Your task to perform on an android device: toggle location history Image 0: 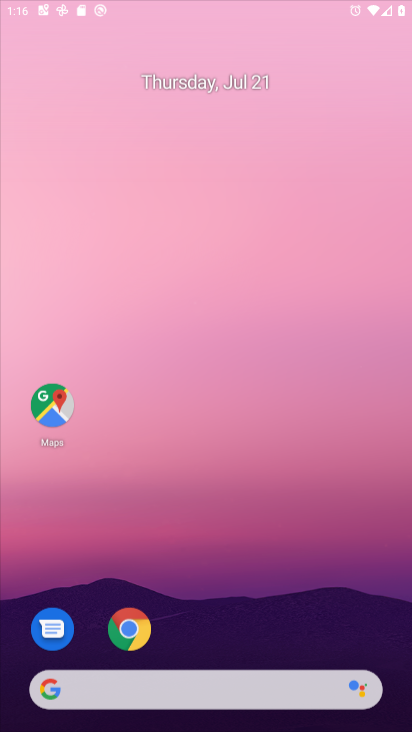
Step 0: click (204, 11)
Your task to perform on an android device: toggle location history Image 1: 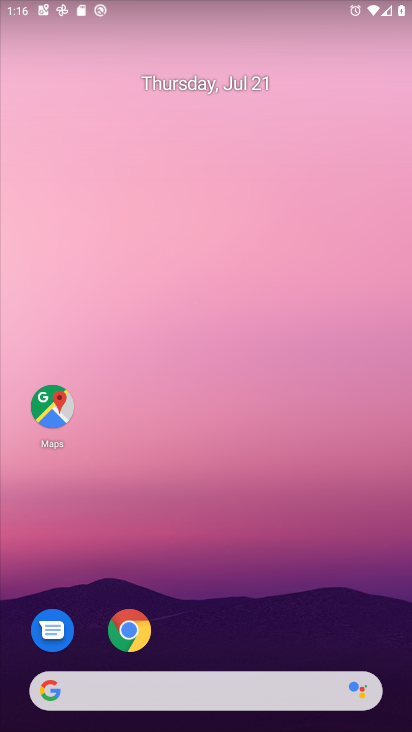
Step 1: drag from (229, 636) to (203, 205)
Your task to perform on an android device: toggle location history Image 2: 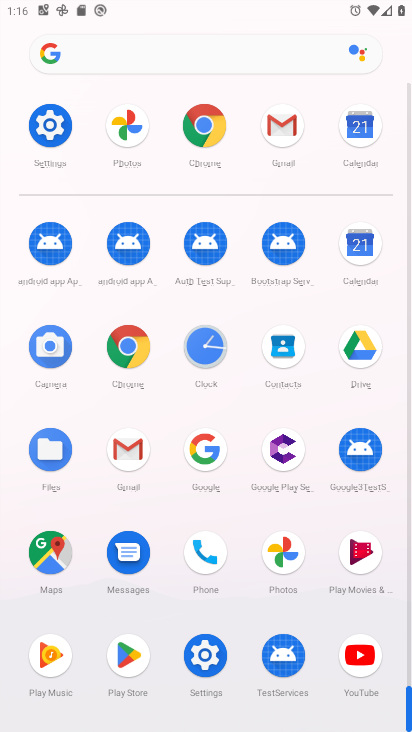
Step 2: click (193, 660)
Your task to perform on an android device: toggle location history Image 3: 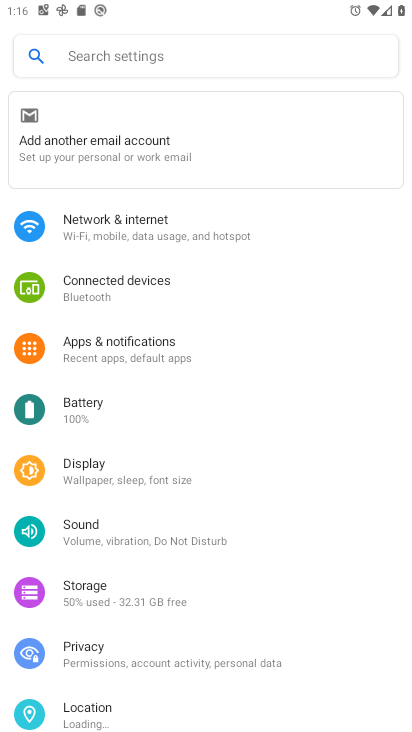
Step 3: drag from (202, 671) to (274, 273)
Your task to perform on an android device: toggle location history Image 4: 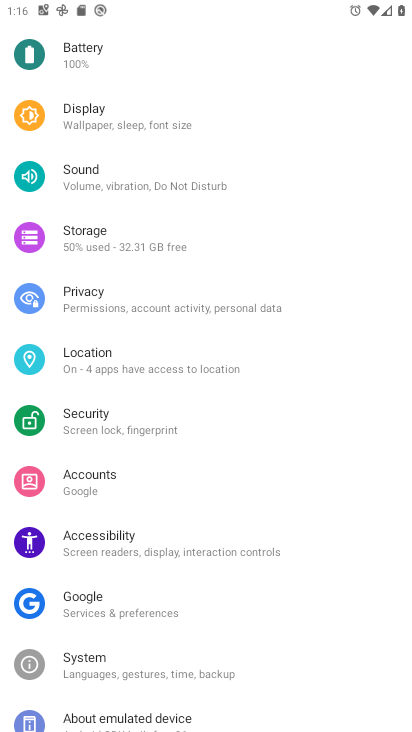
Step 4: click (131, 345)
Your task to perform on an android device: toggle location history Image 5: 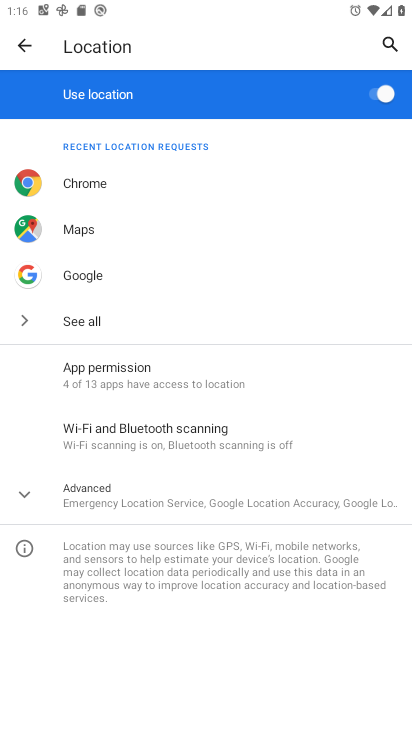
Step 5: click (130, 501)
Your task to perform on an android device: toggle location history Image 6: 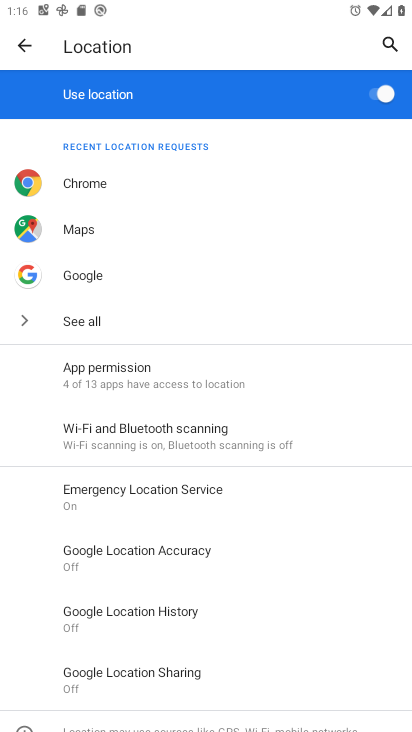
Step 6: click (153, 621)
Your task to perform on an android device: toggle location history Image 7: 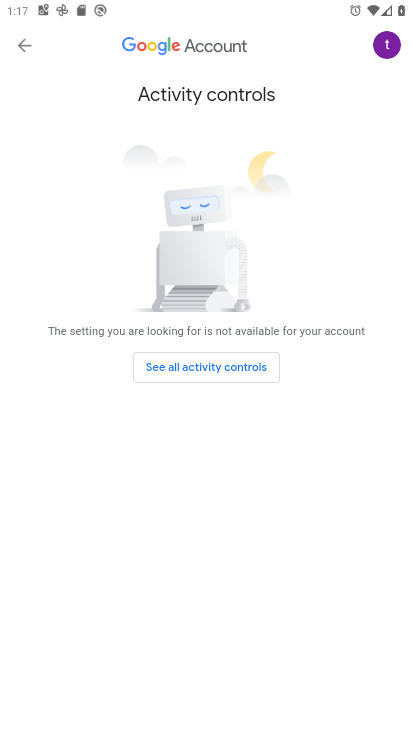
Step 7: click (207, 362)
Your task to perform on an android device: toggle location history Image 8: 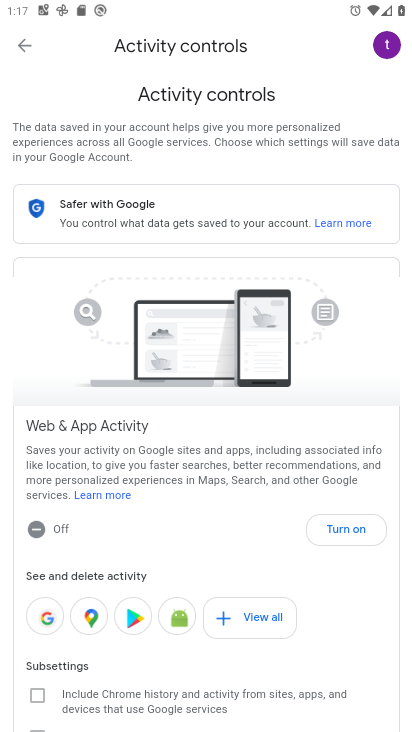
Step 8: click (343, 531)
Your task to perform on an android device: toggle location history Image 9: 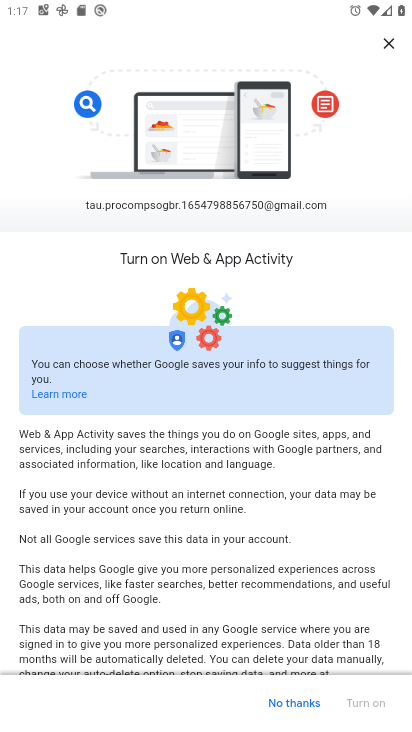
Step 9: drag from (214, 595) to (306, 27)
Your task to perform on an android device: toggle location history Image 10: 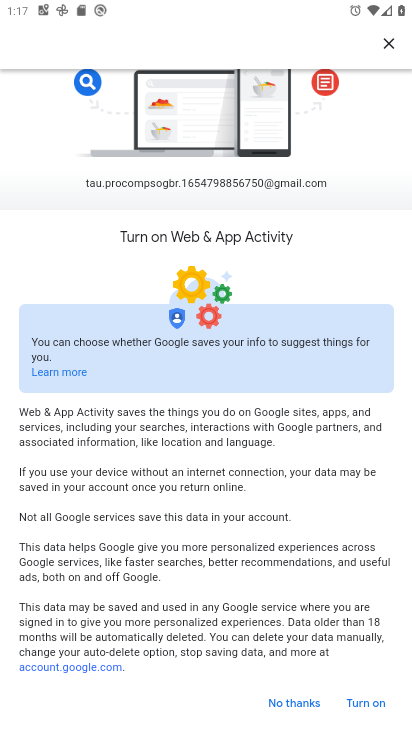
Step 10: drag from (190, 592) to (248, 362)
Your task to perform on an android device: toggle location history Image 11: 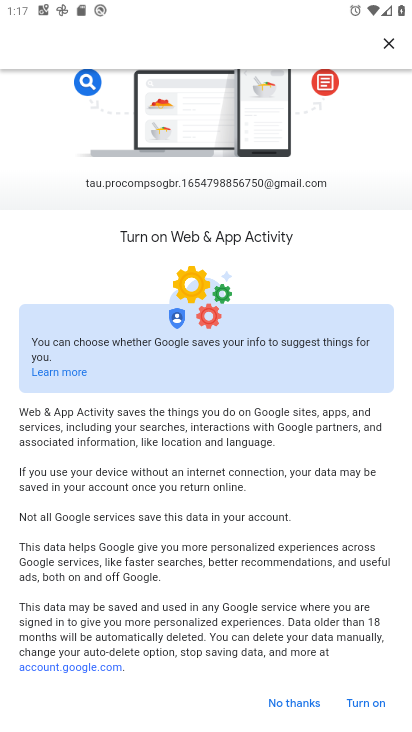
Step 11: click (356, 707)
Your task to perform on an android device: toggle location history Image 12: 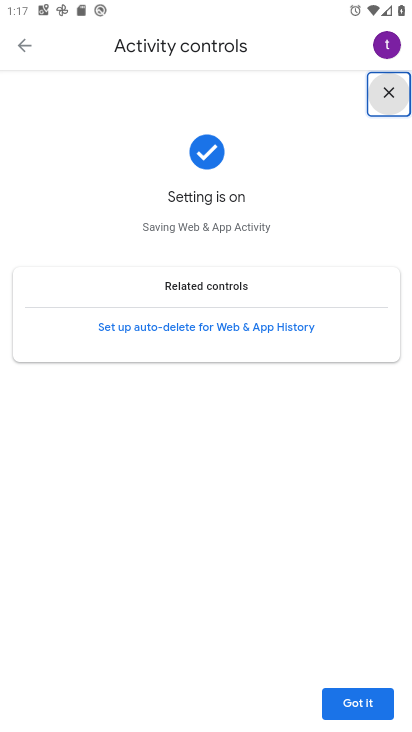
Step 12: click (363, 709)
Your task to perform on an android device: toggle location history Image 13: 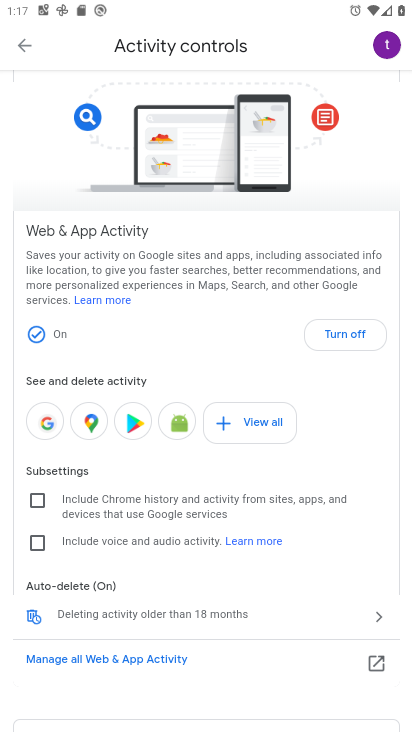
Step 13: task complete